Your task to perform on an android device: Go to battery settings Image 0: 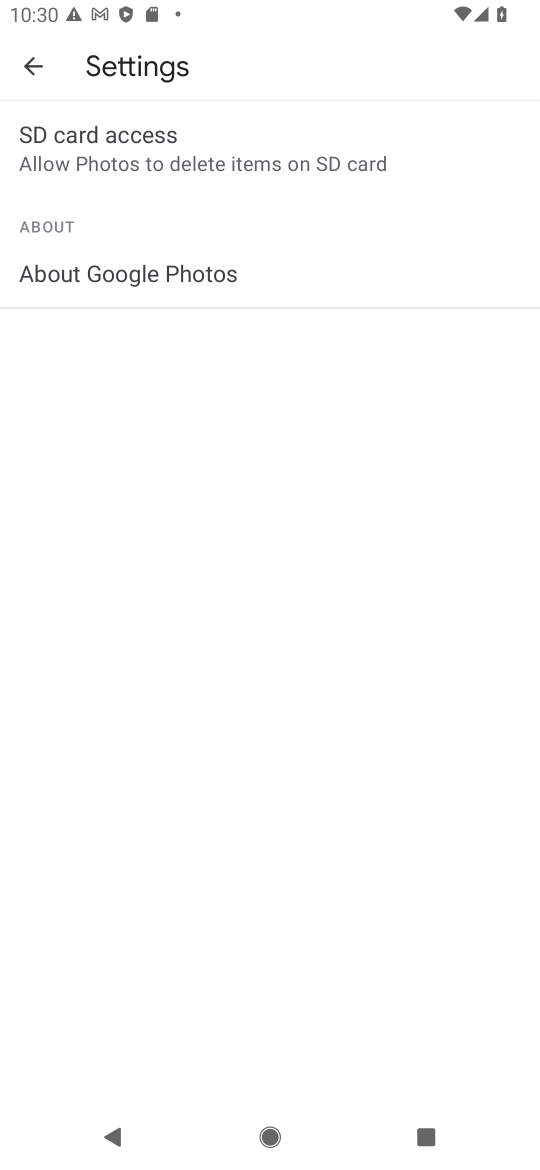
Step 0: press home button
Your task to perform on an android device: Go to battery settings Image 1: 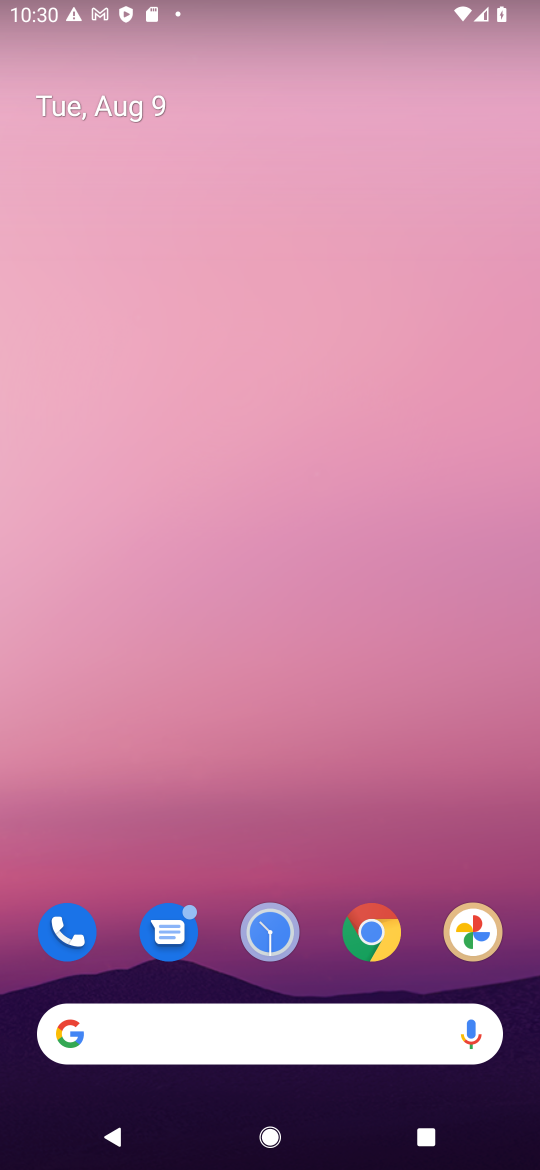
Step 1: drag from (220, 792) to (253, 38)
Your task to perform on an android device: Go to battery settings Image 2: 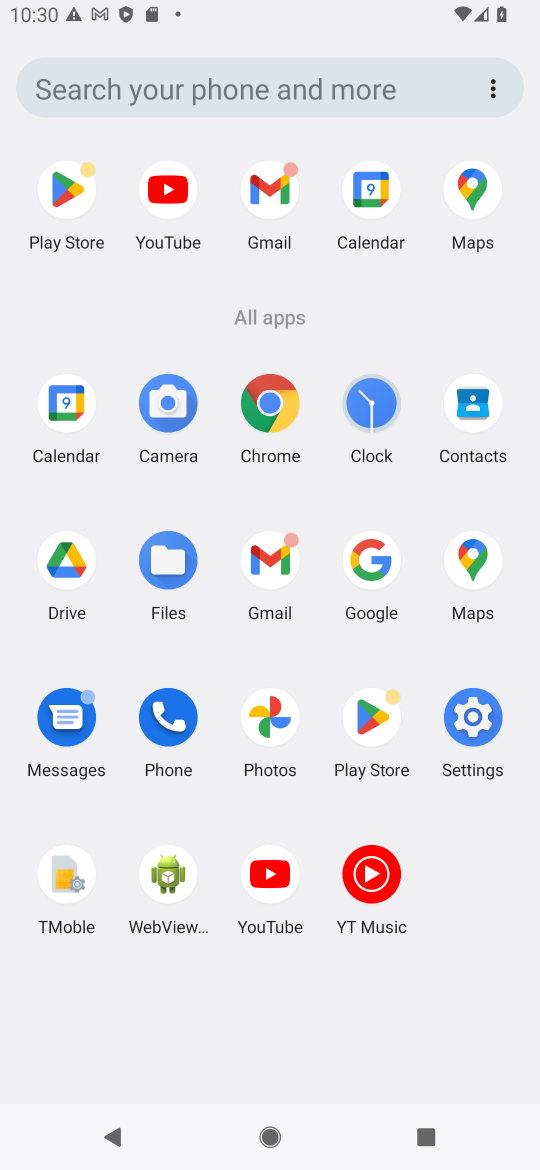
Step 2: click (470, 751)
Your task to perform on an android device: Go to battery settings Image 3: 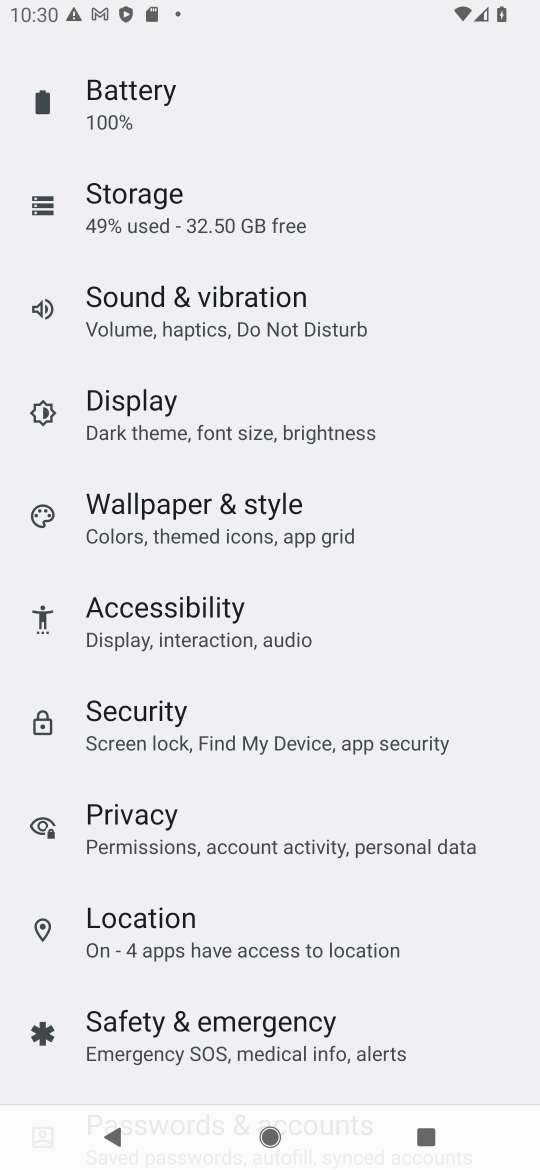
Step 3: drag from (206, 347) to (182, 953)
Your task to perform on an android device: Go to battery settings Image 4: 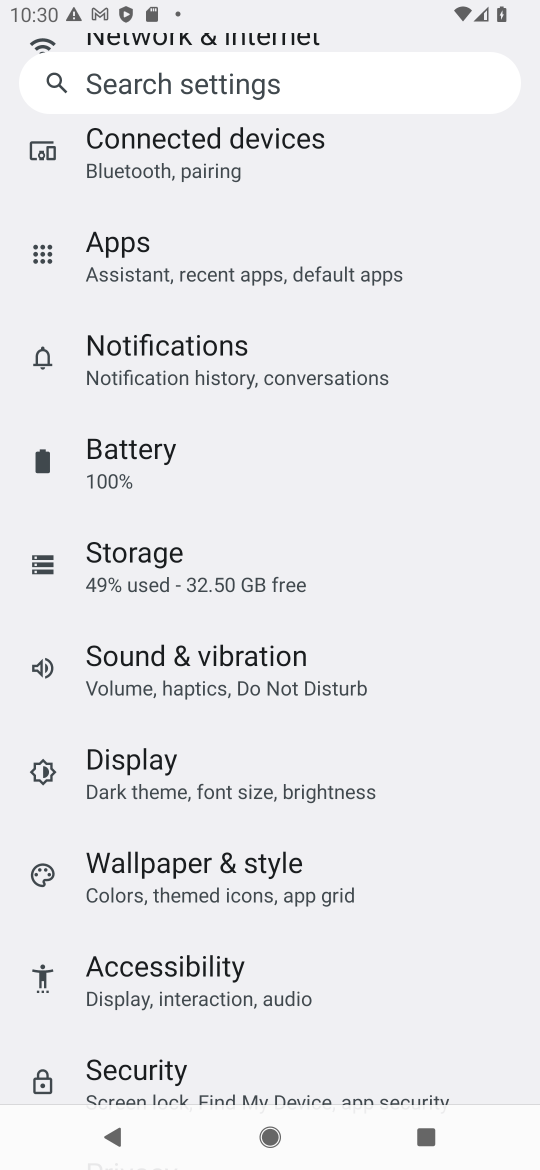
Step 4: click (174, 469)
Your task to perform on an android device: Go to battery settings Image 5: 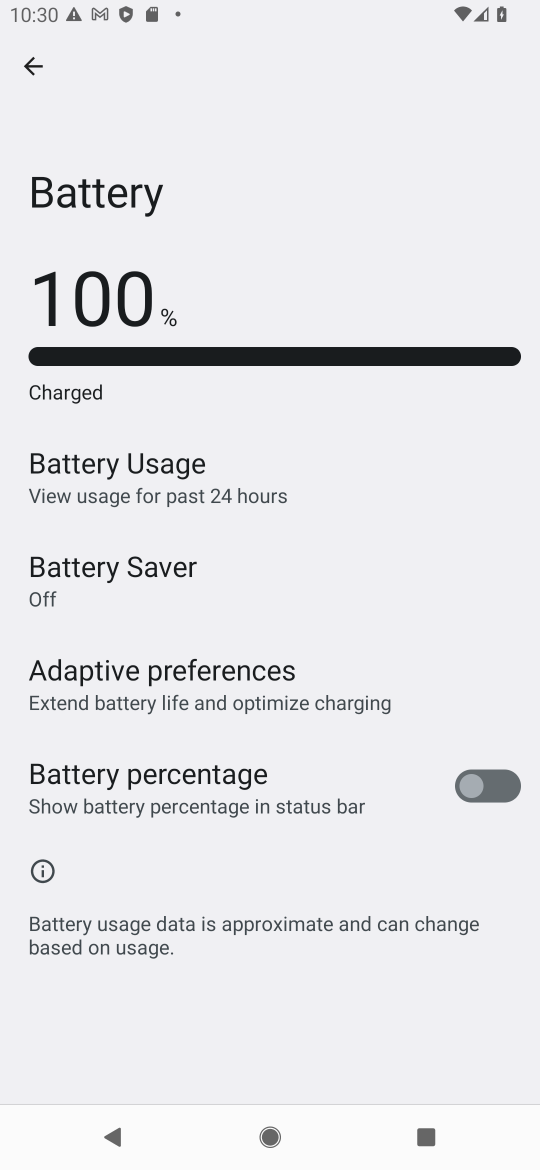
Step 5: task complete